Your task to perform on an android device: search for starred emails in the gmail app Image 0: 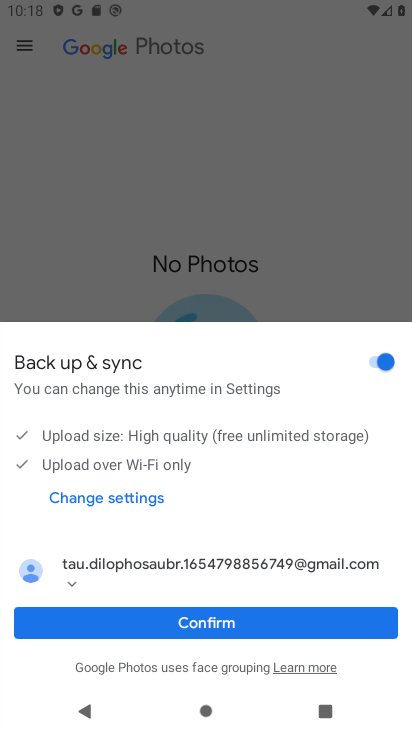
Step 0: press home button
Your task to perform on an android device: search for starred emails in the gmail app Image 1: 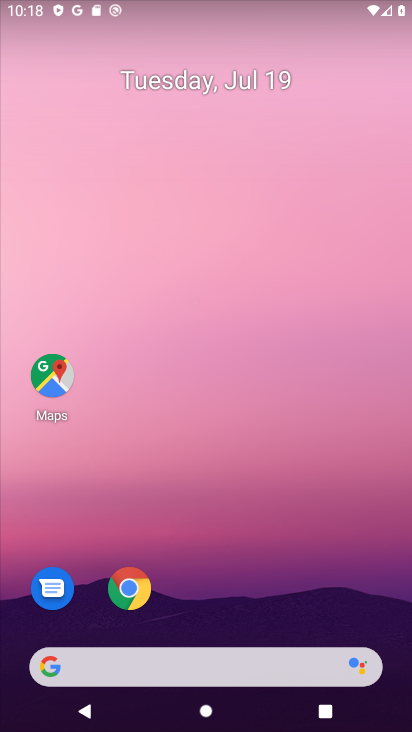
Step 1: drag from (351, 614) to (316, 153)
Your task to perform on an android device: search for starred emails in the gmail app Image 2: 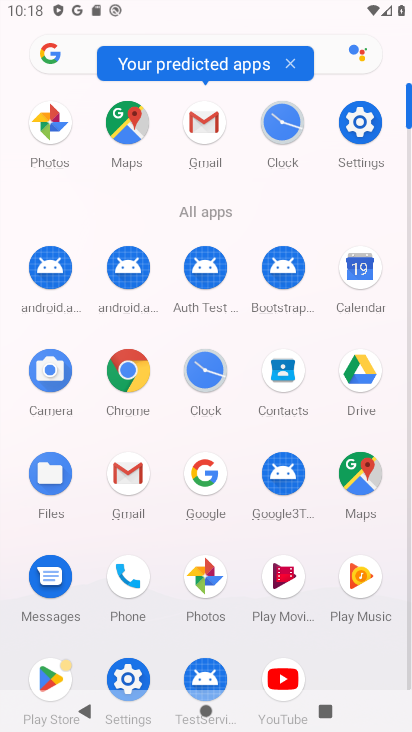
Step 2: click (124, 471)
Your task to perform on an android device: search for starred emails in the gmail app Image 3: 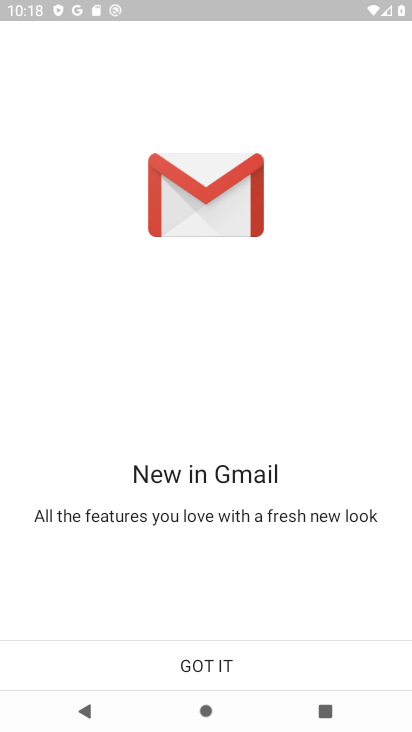
Step 3: click (212, 656)
Your task to perform on an android device: search for starred emails in the gmail app Image 4: 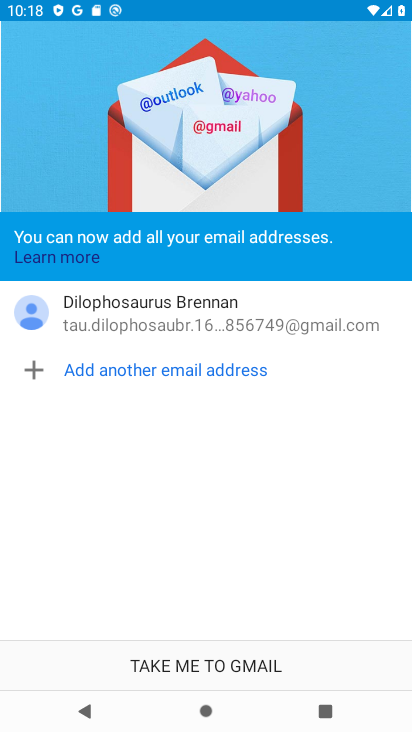
Step 4: click (217, 650)
Your task to perform on an android device: search for starred emails in the gmail app Image 5: 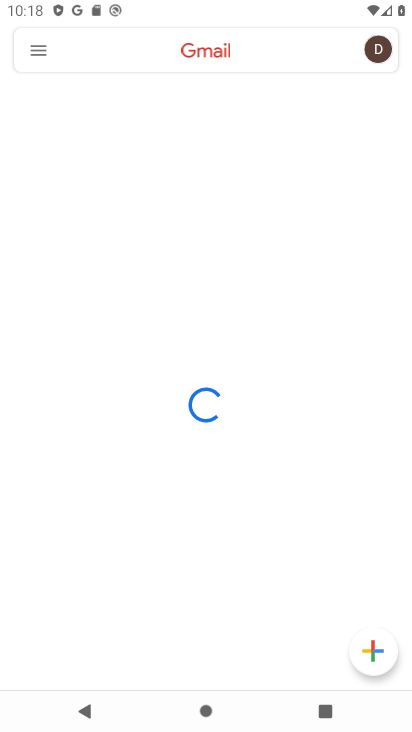
Step 5: click (39, 54)
Your task to perform on an android device: search for starred emails in the gmail app Image 6: 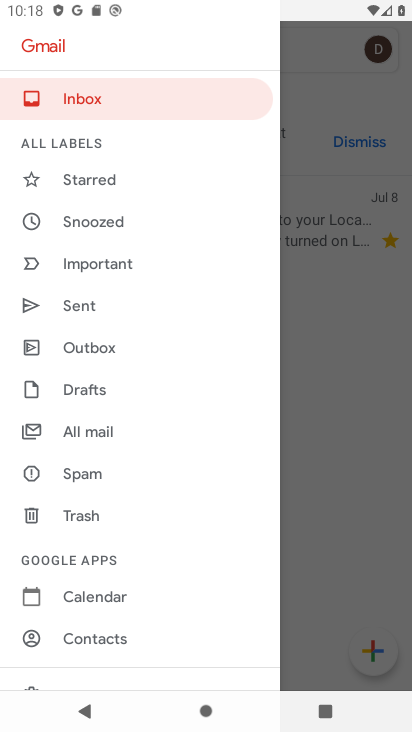
Step 6: click (92, 175)
Your task to perform on an android device: search for starred emails in the gmail app Image 7: 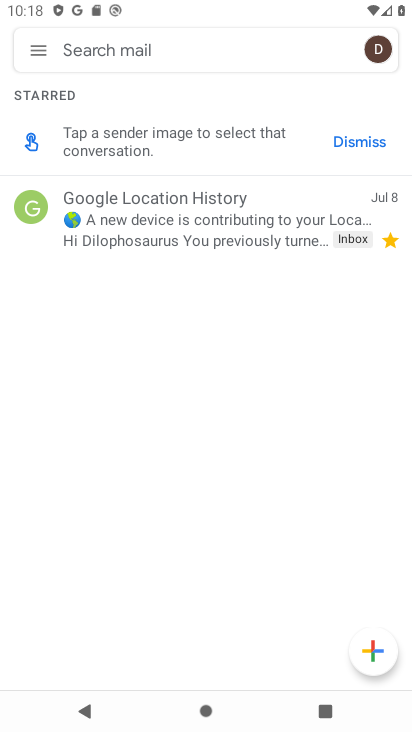
Step 7: task complete